Your task to perform on an android device: toggle javascript in the chrome app Image 0: 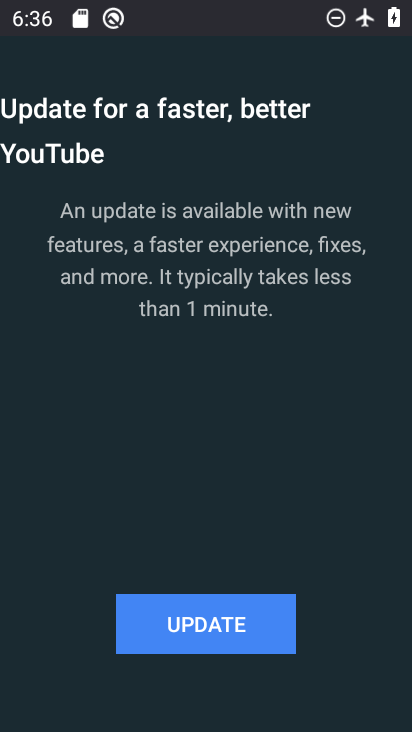
Step 0: press home button
Your task to perform on an android device: toggle javascript in the chrome app Image 1: 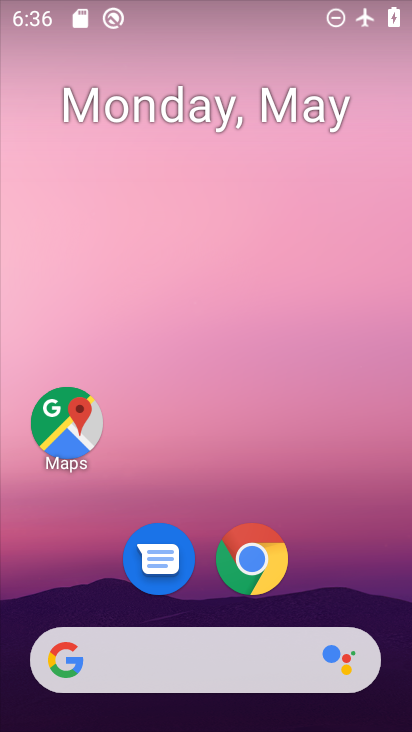
Step 1: click (252, 563)
Your task to perform on an android device: toggle javascript in the chrome app Image 2: 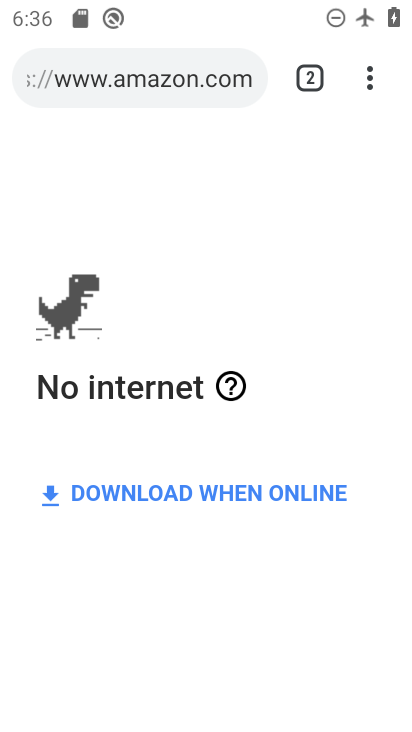
Step 2: click (376, 75)
Your task to perform on an android device: toggle javascript in the chrome app Image 3: 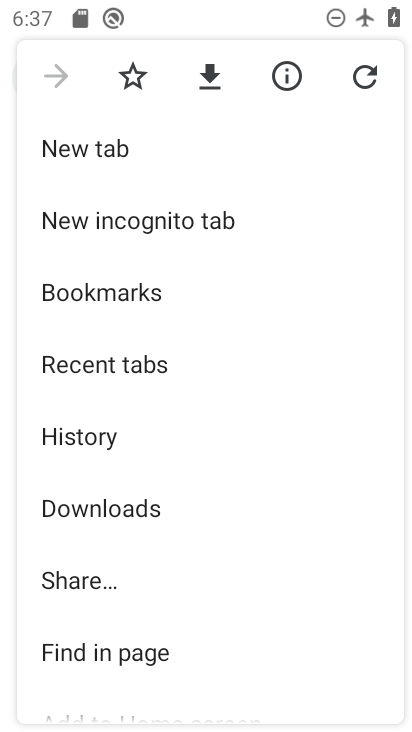
Step 3: drag from (224, 474) to (175, 115)
Your task to perform on an android device: toggle javascript in the chrome app Image 4: 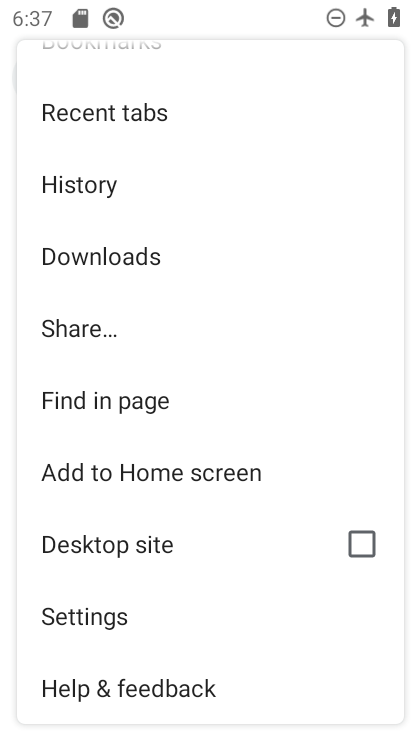
Step 4: drag from (213, 540) to (203, 227)
Your task to perform on an android device: toggle javascript in the chrome app Image 5: 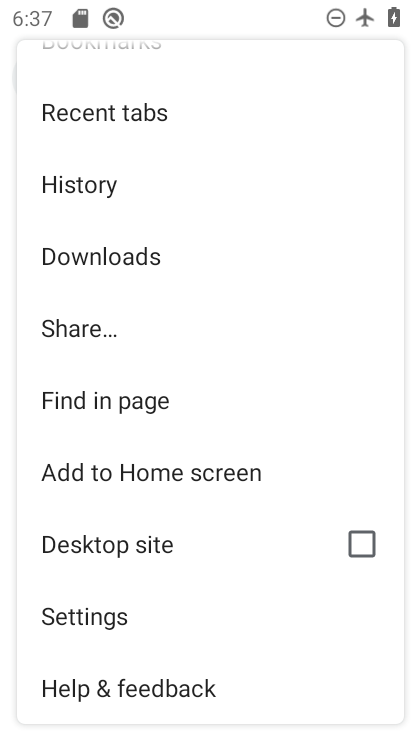
Step 5: click (97, 620)
Your task to perform on an android device: toggle javascript in the chrome app Image 6: 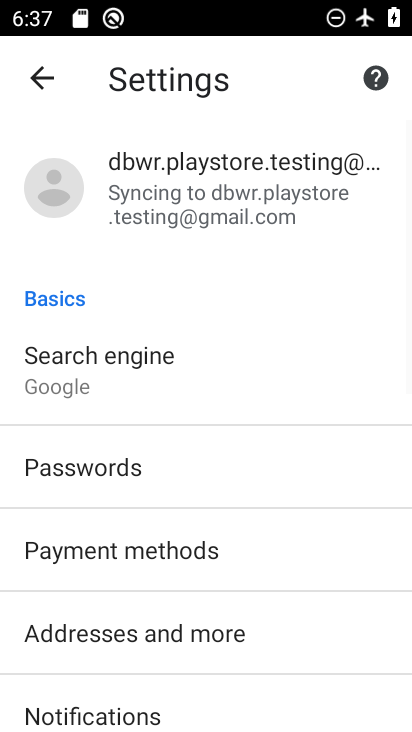
Step 6: drag from (252, 597) to (217, 182)
Your task to perform on an android device: toggle javascript in the chrome app Image 7: 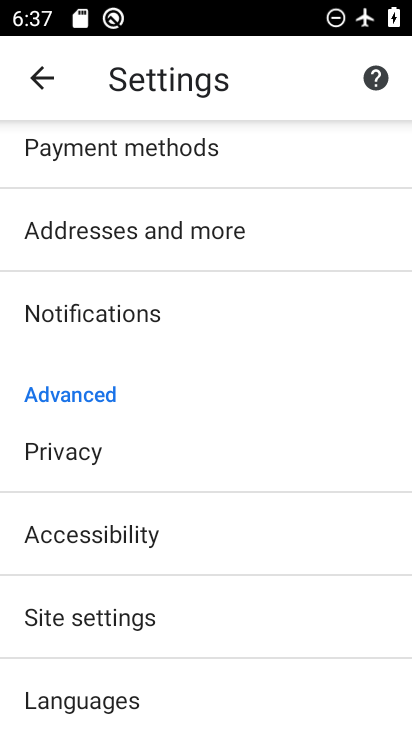
Step 7: click (122, 617)
Your task to perform on an android device: toggle javascript in the chrome app Image 8: 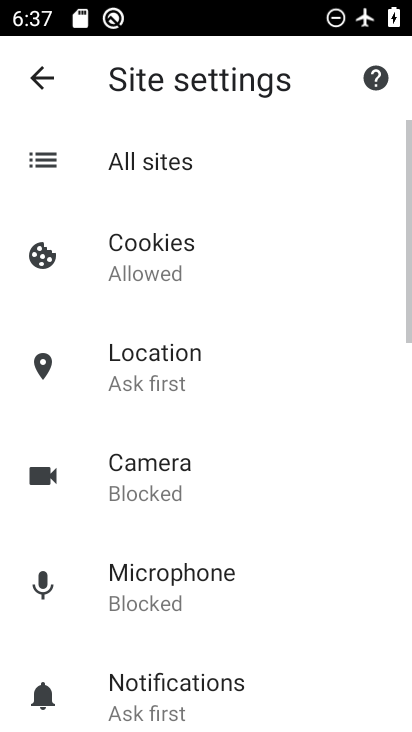
Step 8: drag from (230, 548) to (211, 123)
Your task to perform on an android device: toggle javascript in the chrome app Image 9: 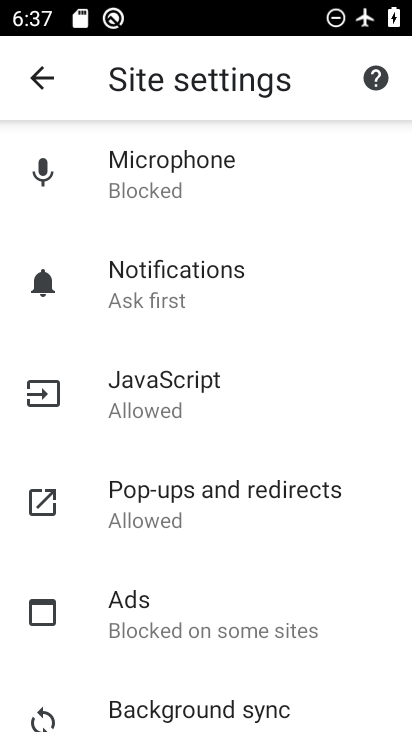
Step 9: click (171, 387)
Your task to perform on an android device: toggle javascript in the chrome app Image 10: 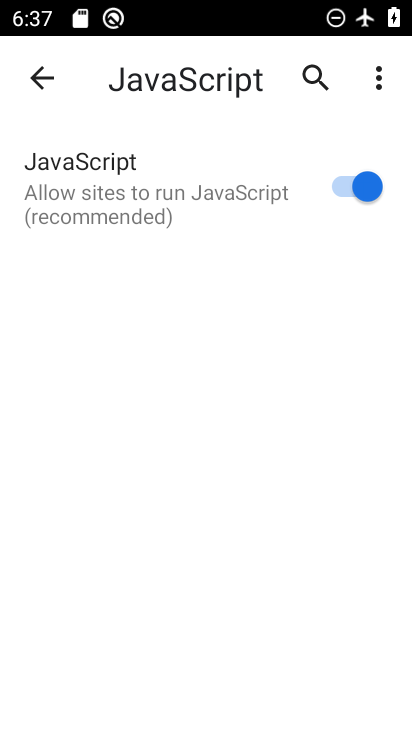
Step 10: click (363, 201)
Your task to perform on an android device: toggle javascript in the chrome app Image 11: 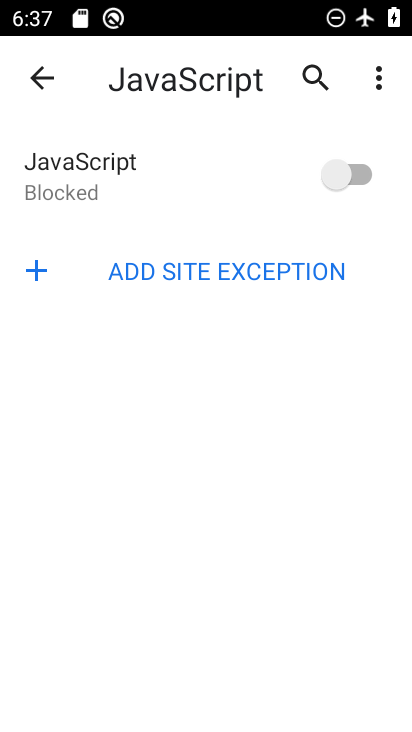
Step 11: task complete